Your task to perform on an android device: What's the weather going to be this weekend? Image 0: 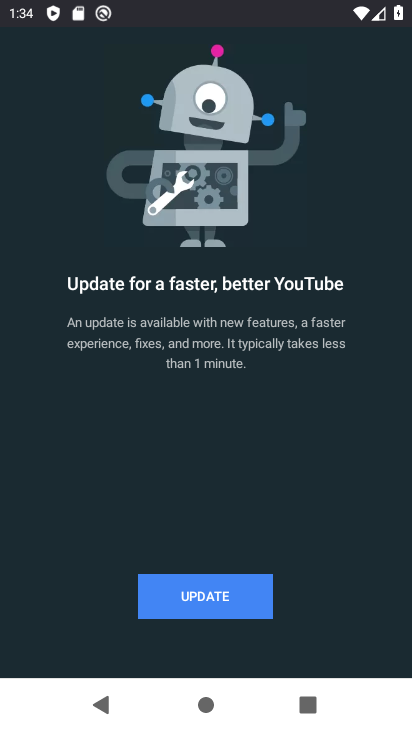
Step 0: press home button
Your task to perform on an android device: What's the weather going to be this weekend? Image 1: 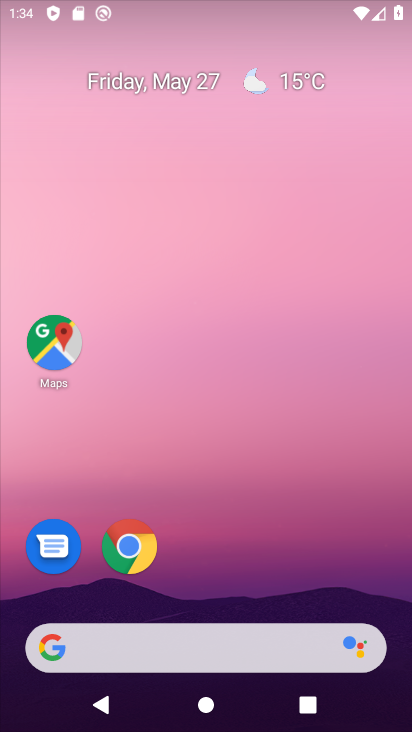
Step 1: drag from (385, 573) to (343, 157)
Your task to perform on an android device: What's the weather going to be this weekend? Image 2: 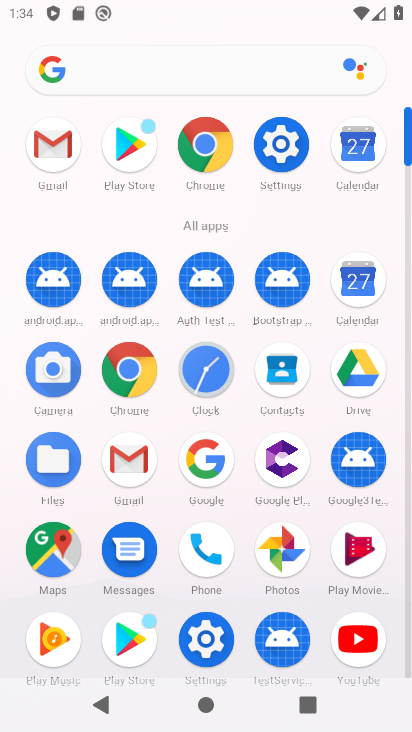
Step 2: click (209, 144)
Your task to perform on an android device: What's the weather going to be this weekend? Image 3: 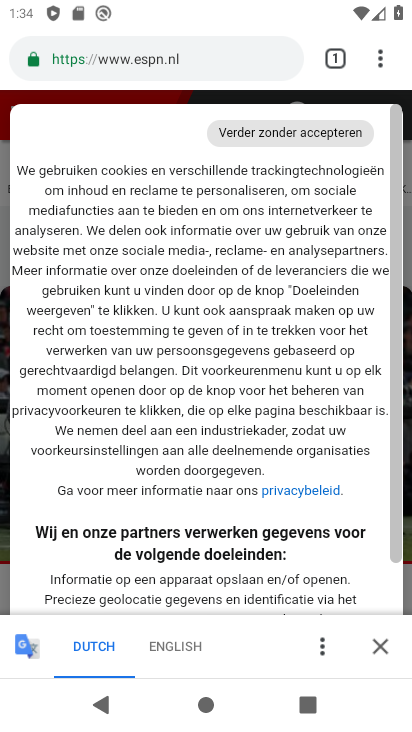
Step 3: click (150, 67)
Your task to perform on an android device: What's the weather going to be this weekend? Image 4: 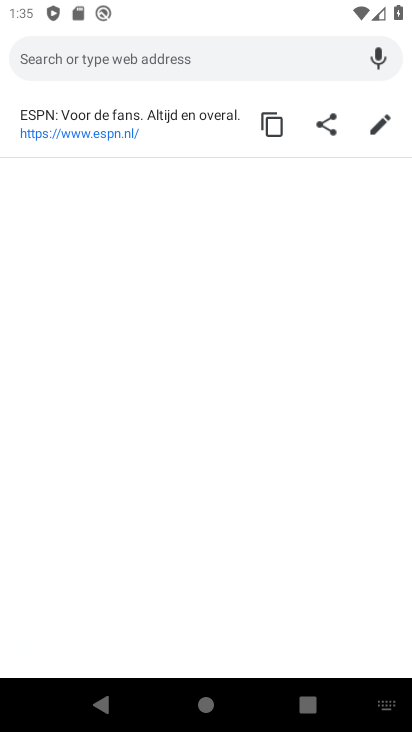
Step 4: type "what's the weather going to be this weekend "
Your task to perform on an android device: What's the weather going to be this weekend? Image 5: 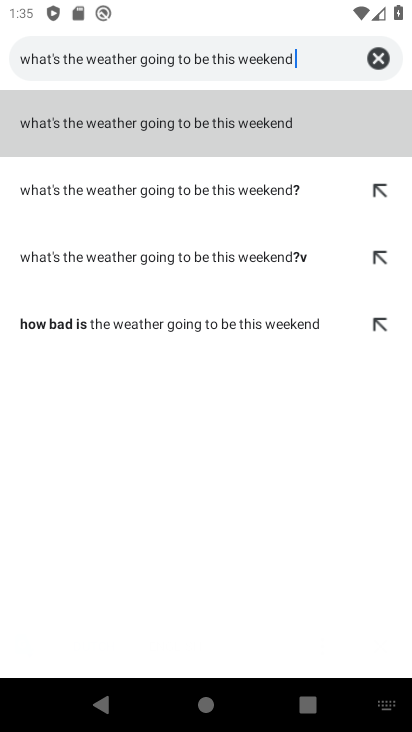
Step 5: click (121, 119)
Your task to perform on an android device: What's the weather going to be this weekend? Image 6: 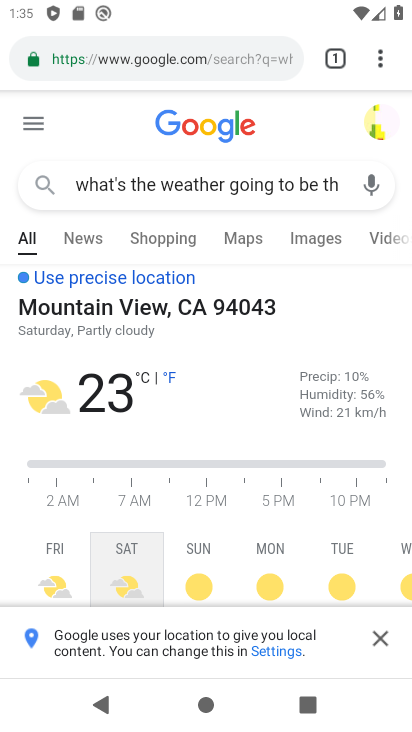
Step 6: click (375, 651)
Your task to perform on an android device: What's the weather going to be this weekend? Image 7: 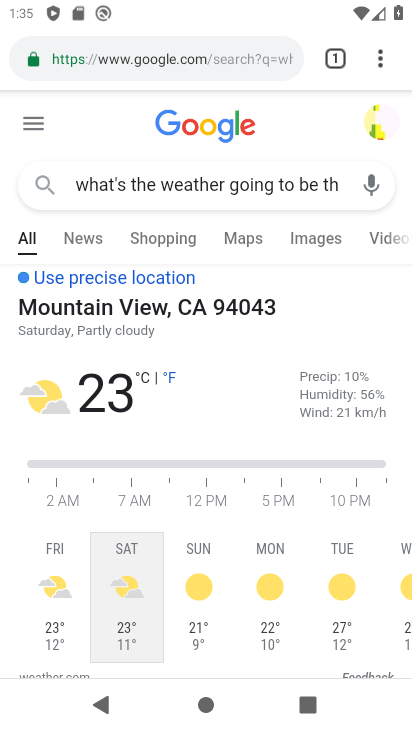
Step 7: task complete